Your task to perform on an android device: set the stopwatch Image 0: 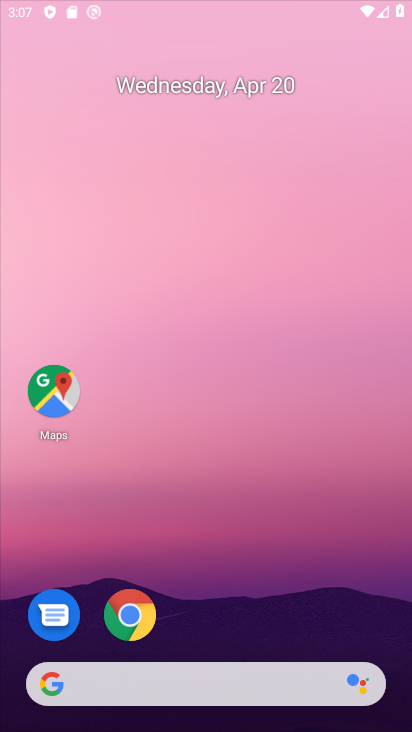
Step 0: drag from (261, 299) to (281, 3)
Your task to perform on an android device: set the stopwatch Image 1: 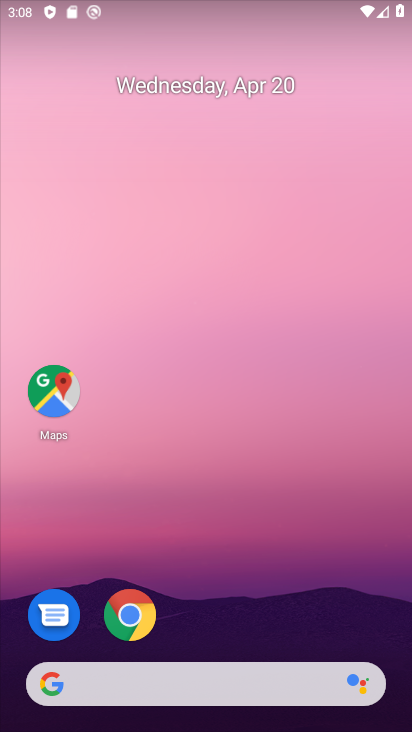
Step 1: drag from (216, 506) to (266, 3)
Your task to perform on an android device: set the stopwatch Image 2: 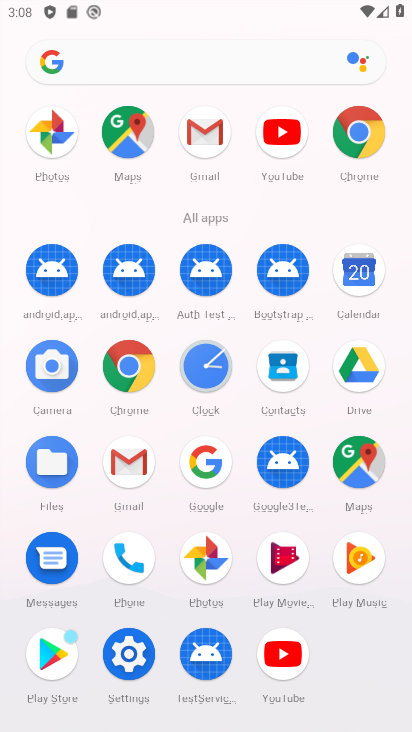
Step 2: click (176, 359)
Your task to perform on an android device: set the stopwatch Image 3: 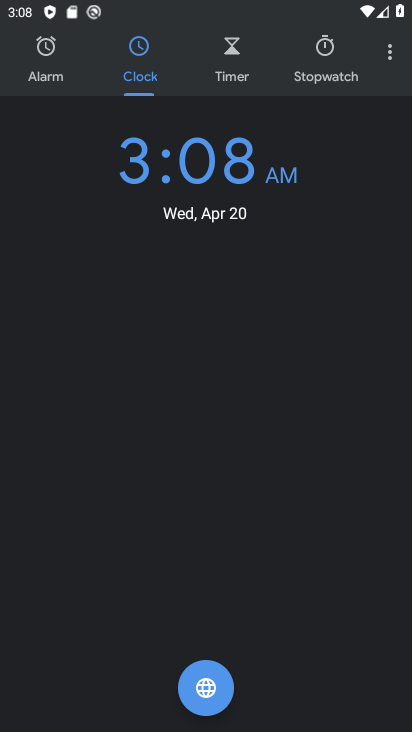
Step 3: click (315, 83)
Your task to perform on an android device: set the stopwatch Image 4: 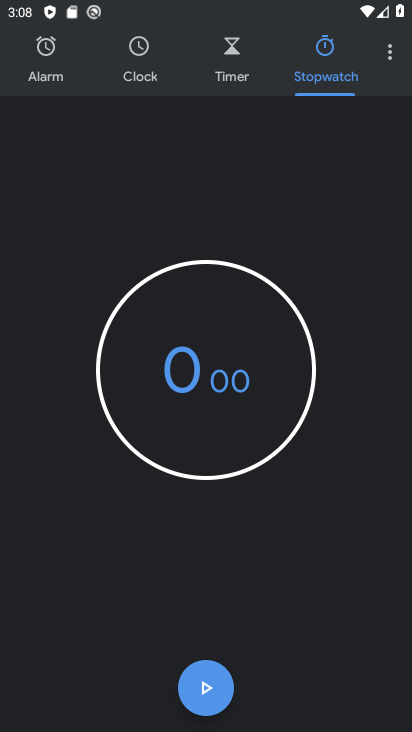
Step 4: click (201, 672)
Your task to perform on an android device: set the stopwatch Image 5: 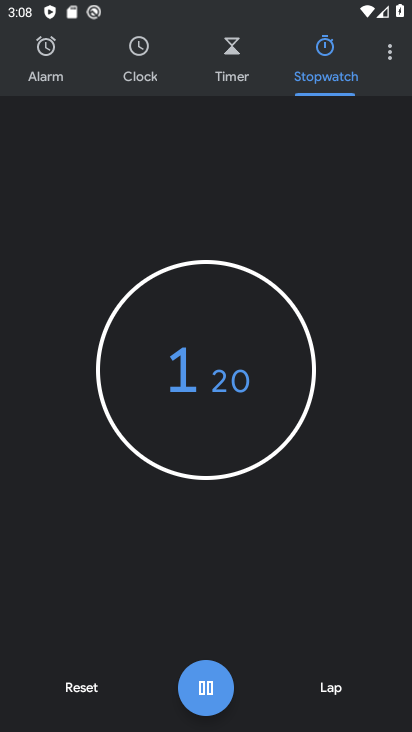
Step 5: task complete